Your task to perform on an android device: change alarm snooze length Image 0: 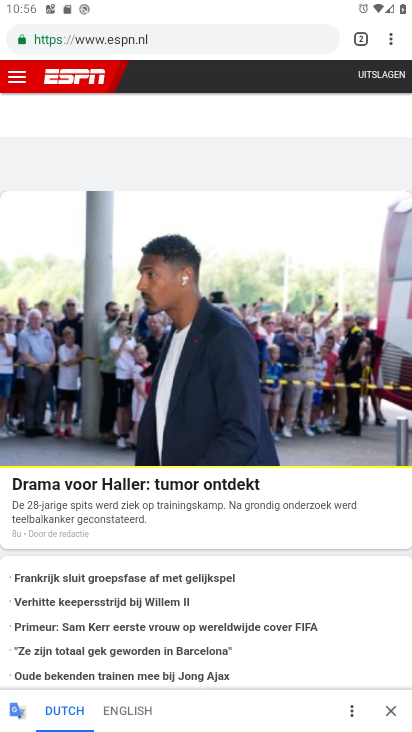
Step 0: click (393, 52)
Your task to perform on an android device: change alarm snooze length Image 1: 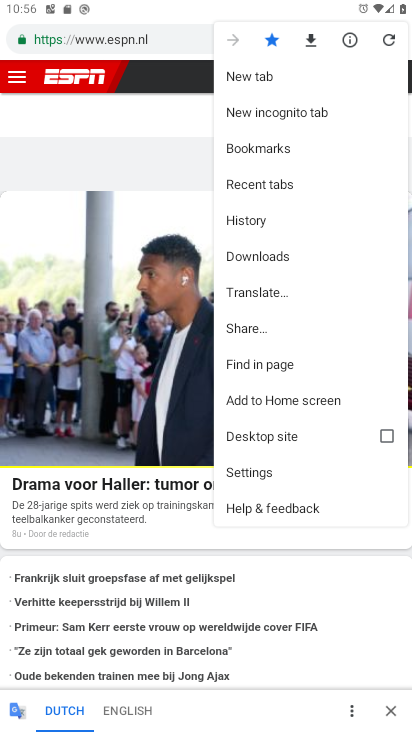
Step 1: press home button
Your task to perform on an android device: change alarm snooze length Image 2: 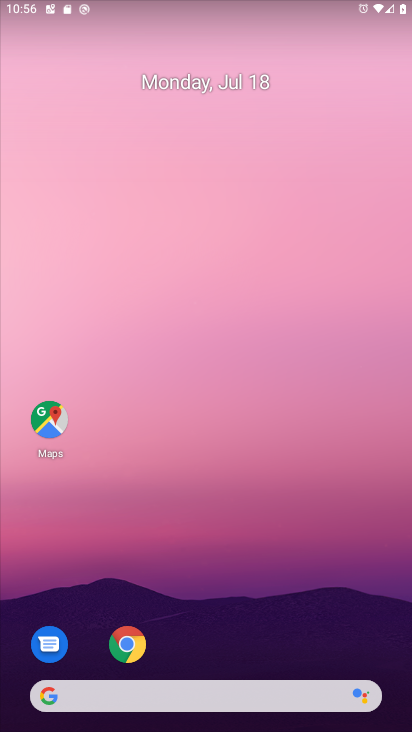
Step 2: drag from (299, 633) to (311, 104)
Your task to perform on an android device: change alarm snooze length Image 3: 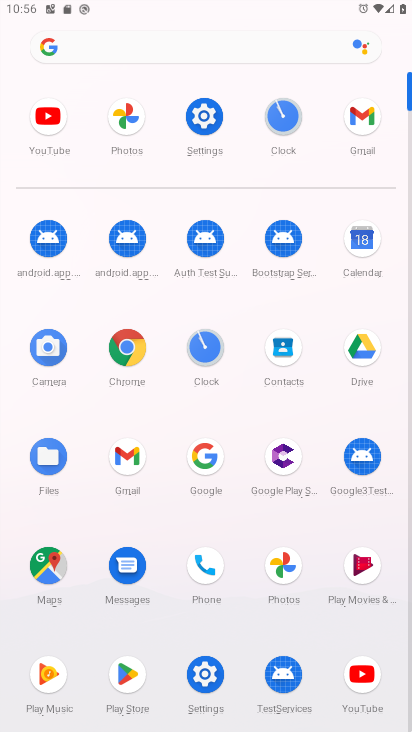
Step 3: click (274, 131)
Your task to perform on an android device: change alarm snooze length Image 4: 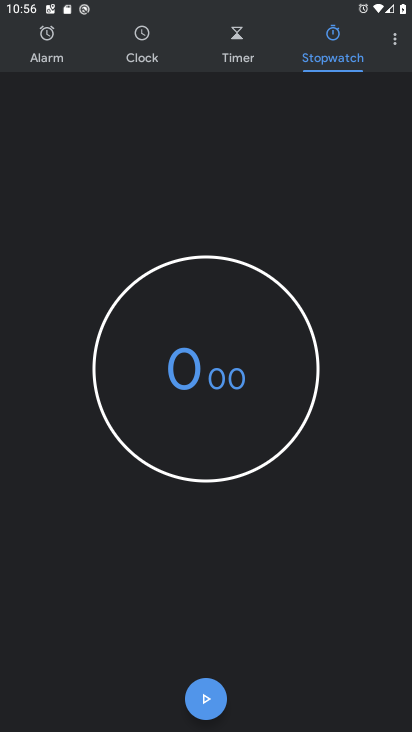
Step 4: click (394, 39)
Your task to perform on an android device: change alarm snooze length Image 5: 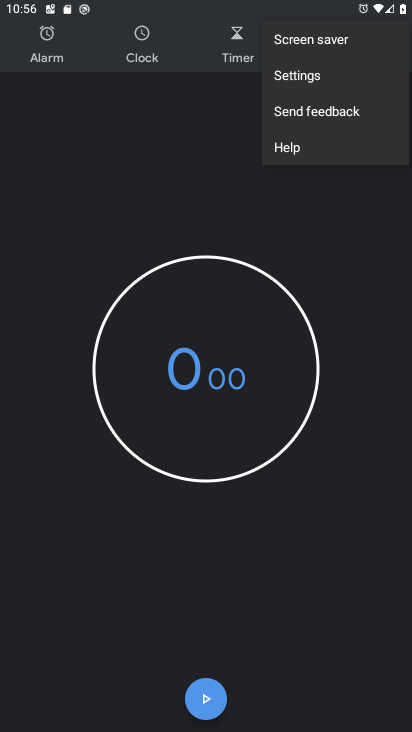
Step 5: click (283, 81)
Your task to perform on an android device: change alarm snooze length Image 6: 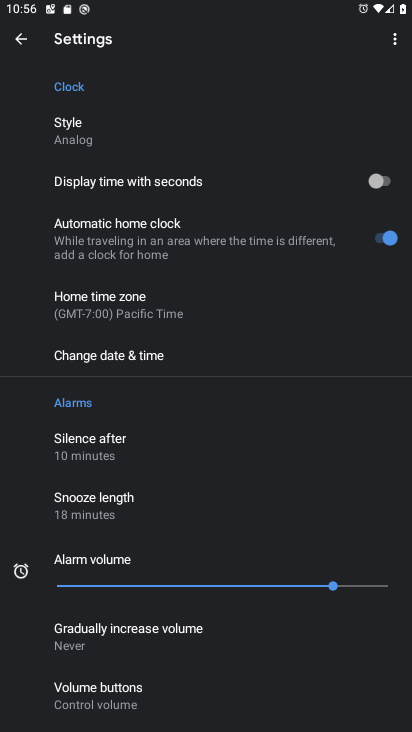
Step 6: click (139, 365)
Your task to perform on an android device: change alarm snooze length Image 7: 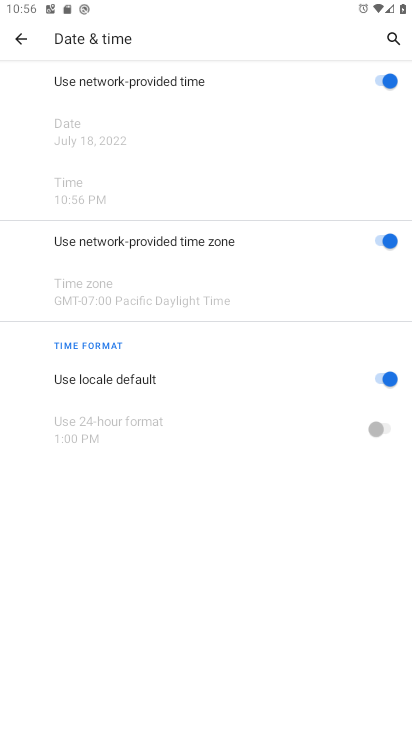
Step 7: task complete